Your task to perform on an android device: change your default location settings in chrome Image 0: 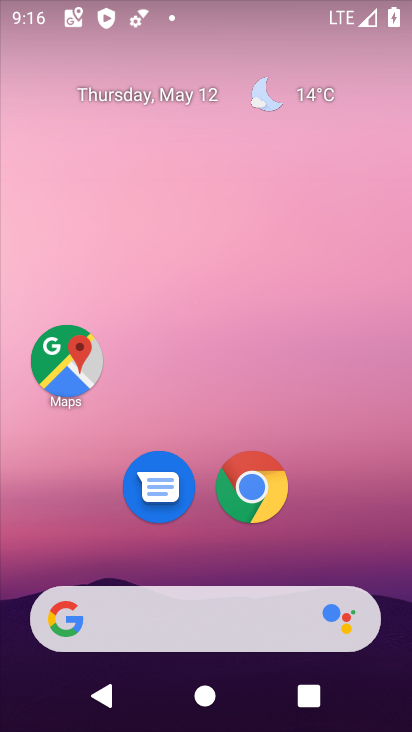
Step 0: click (236, 483)
Your task to perform on an android device: change your default location settings in chrome Image 1: 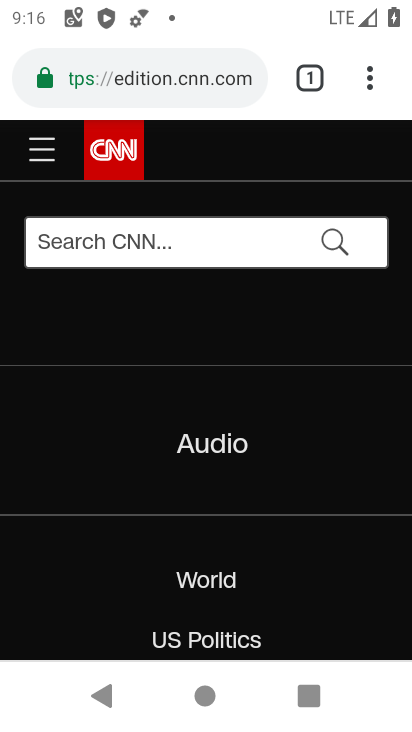
Step 1: click (372, 84)
Your task to perform on an android device: change your default location settings in chrome Image 2: 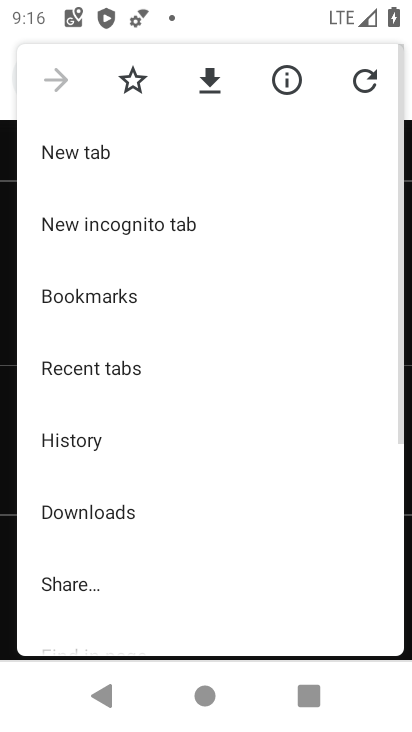
Step 2: drag from (15, 594) to (369, 65)
Your task to perform on an android device: change your default location settings in chrome Image 3: 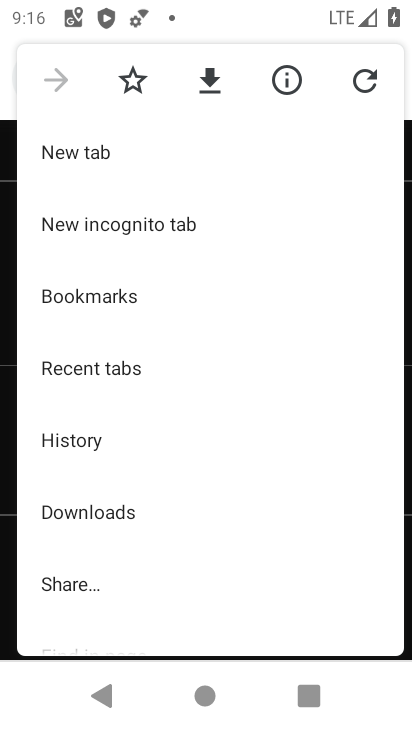
Step 3: drag from (101, 578) to (371, 120)
Your task to perform on an android device: change your default location settings in chrome Image 4: 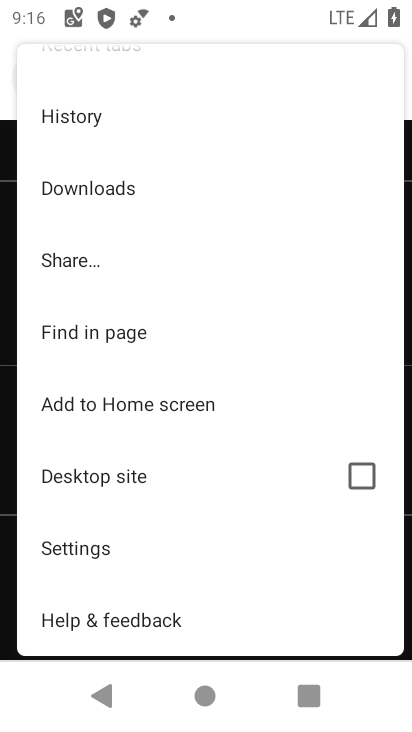
Step 4: click (67, 561)
Your task to perform on an android device: change your default location settings in chrome Image 5: 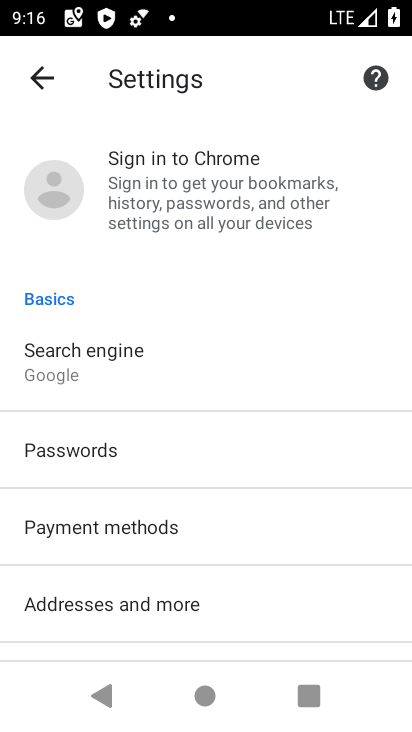
Step 5: drag from (16, 598) to (274, 193)
Your task to perform on an android device: change your default location settings in chrome Image 6: 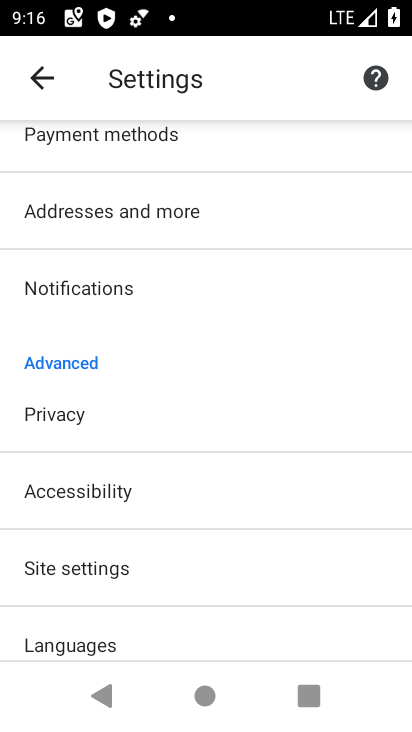
Step 6: drag from (80, 684) to (276, 295)
Your task to perform on an android device: change your default location settings in chrome Image 7: 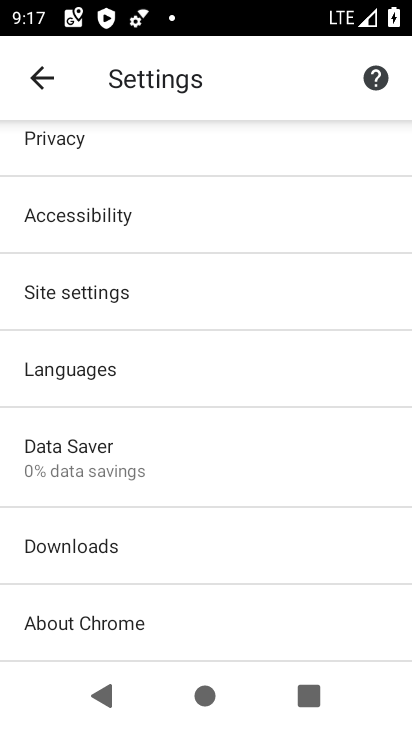
Step 7: click (184, 273)
Your task to perform on an android device: change your default location settings in chrome Image 8: 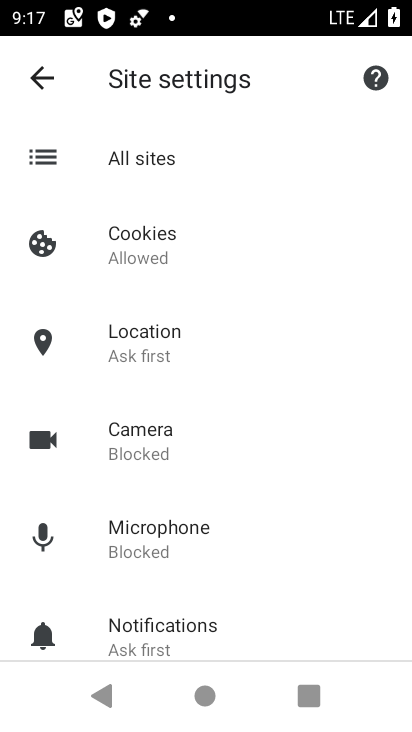
Step 8: drag from (124, 652) to (227, 363)
Your task to perform on an android device: change your default location settings in chrome Image 9: 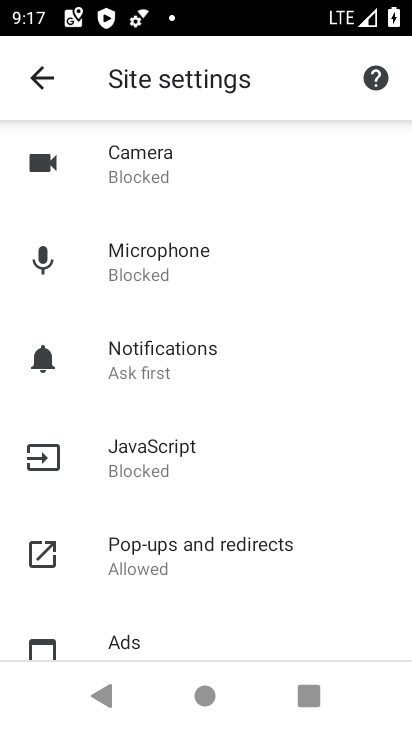
Step 9: drag from (157, 224) to (101, 551)
Your task to perform on an android device: change your default location settings in chrome Image 10: 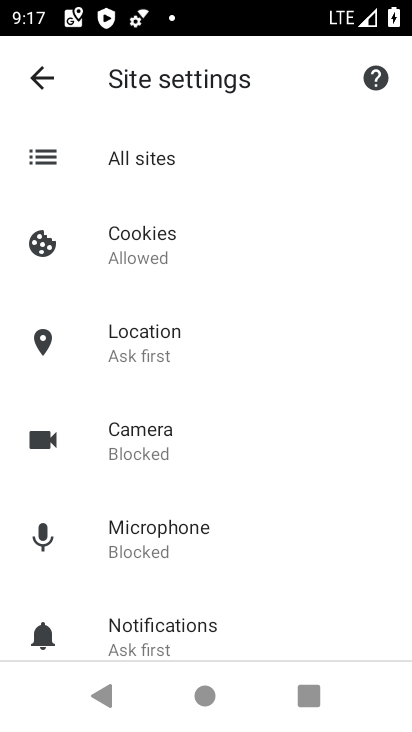
Step 10: click (151, 349)
Your task to perform on an android device: change your default location settings in chrome Image 11: 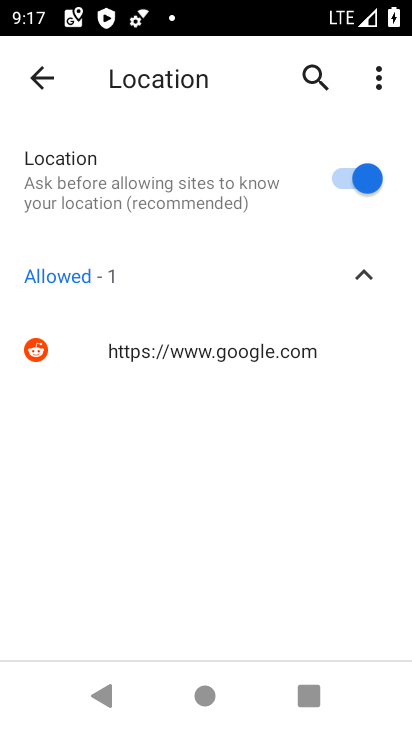
Step 11: click (372, 80)
Your task to perform on an android device: change your default location settings in chrome Image 12: 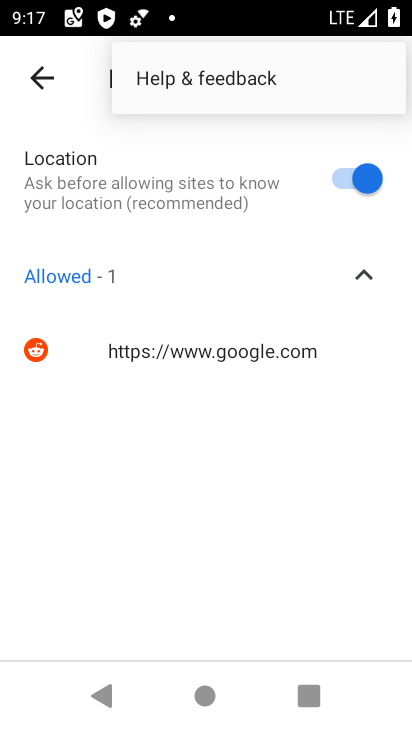
Step 12: click (372, 80)
Your task to perform on an android device: change your default location settings in chrome Image 13: 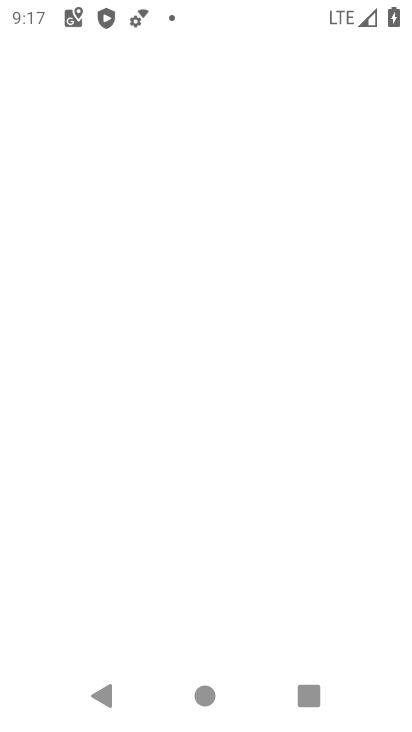
Step 13: task complete